Your task to perform on an android device: choose inbox layout in the gmail app Image 0: 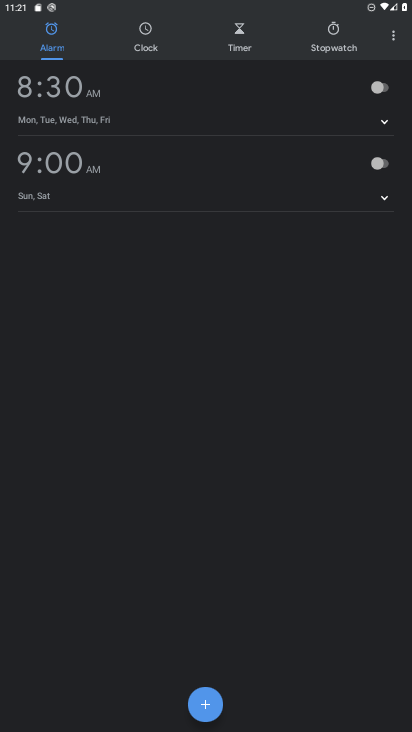
Step 0: press home button
Your task to perform on an android device: choose inbox layout in the gmail app Image 1: 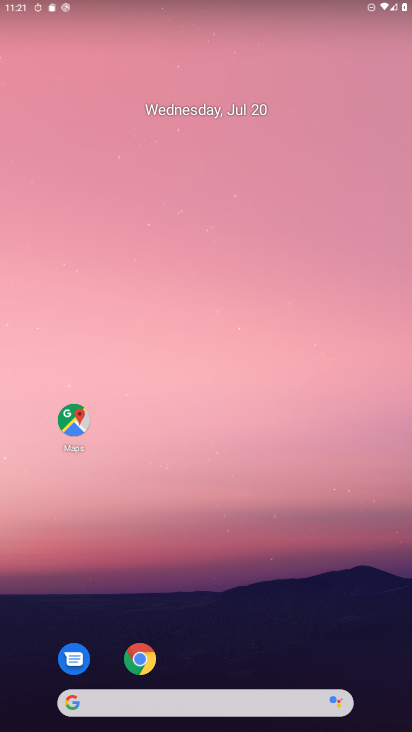
Step 1: drag from (349, 617) to (204, 128)
Your task to perform on an android device: choose inbox layout in the gmail app Image 2: 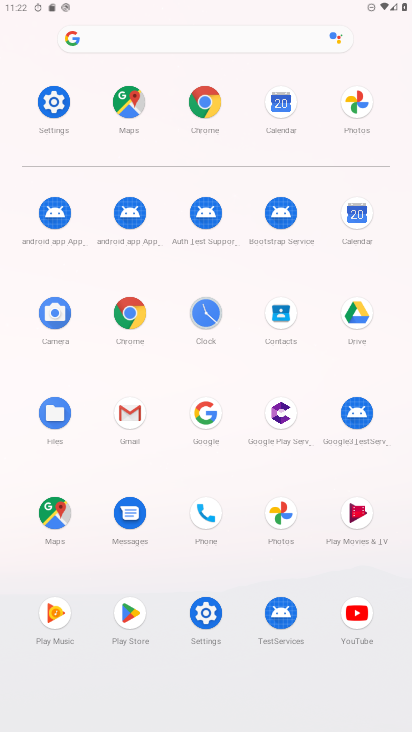
Step 2: click (125, 410)
Your task to perform on an android device: choose inbox layout in the gmail app Image 3: 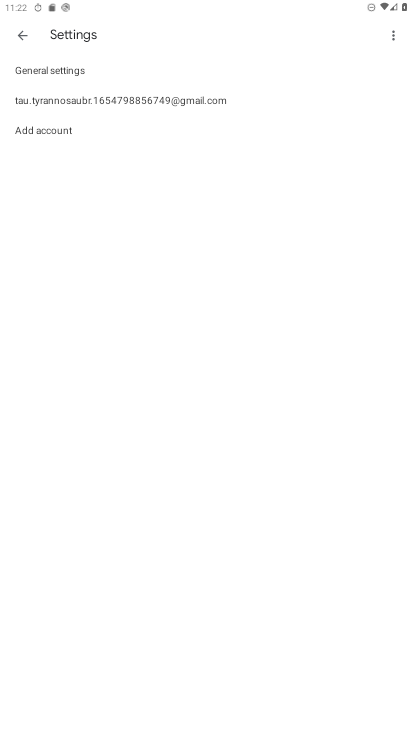
Step 3: click (51, 97)
Your task to perform on an android device: choose inbox layout in the gmail app Image 4: 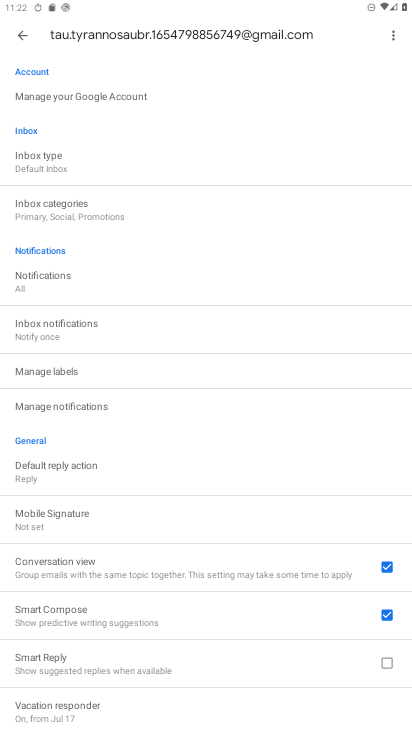
Step 4: click (47, 163)
Your task to perform on an android device: choose inbox layout in the gmail app Image 5: 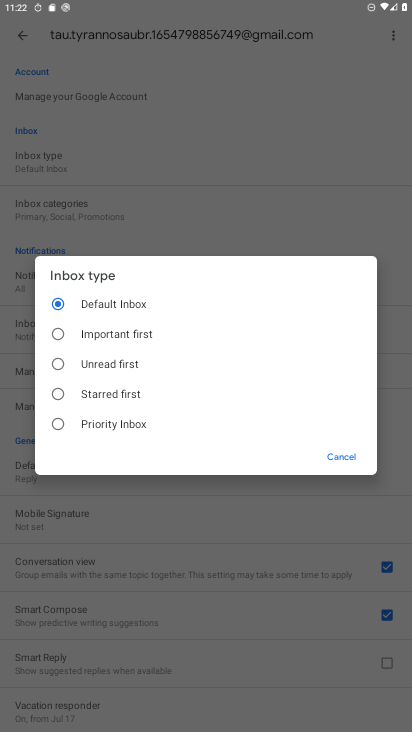
Step 5: task complete